Your task to perform on an android device: change keyboard looks Image 0: 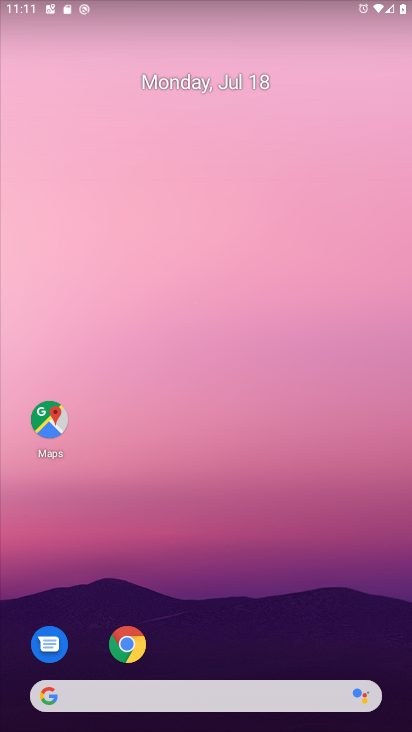
Step 0: drag from (244, 667) to (185, 107)
Your task to perform on an android device: change keyboard looks Image 1: 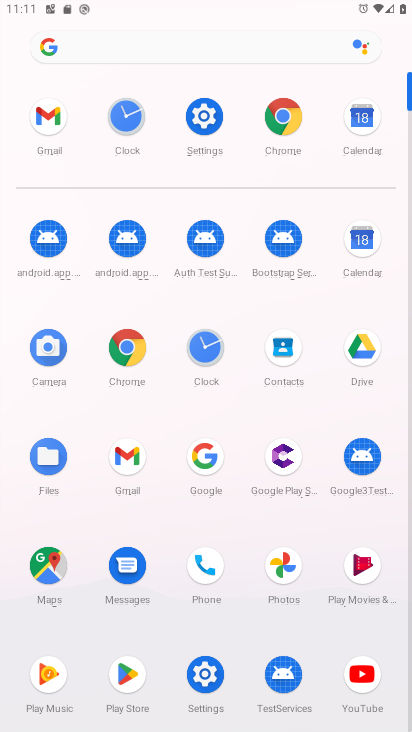
Step 1: click (201, 137)
Your task to perform on an android device: change keyboard looks Image 2: 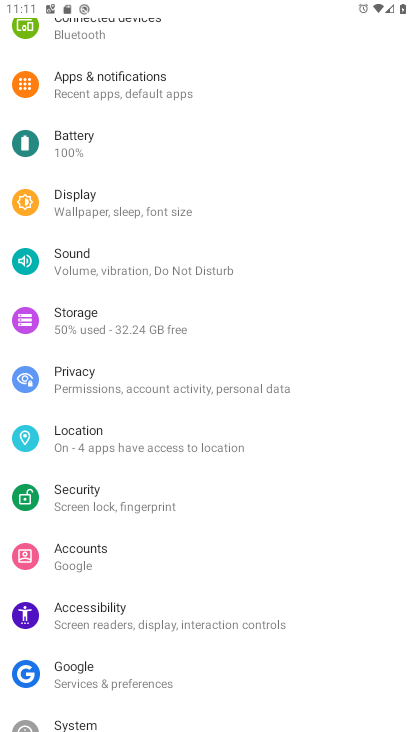
Step 2: drag from (134, 678) to (103, 368)
Your task to perform on an android device: change keyboard looks Image 3: 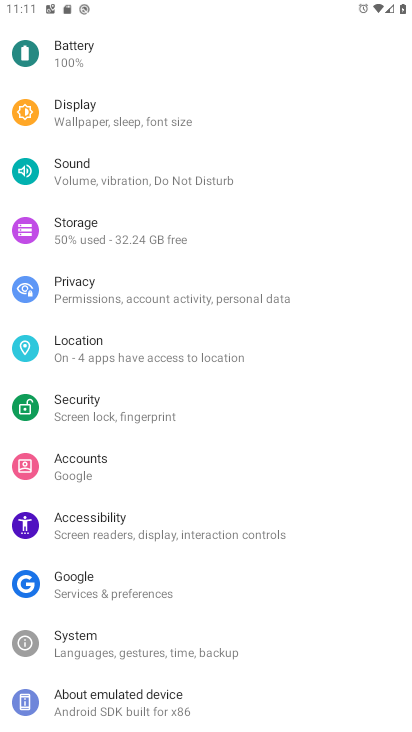
Step 3: click (233, 658)
Your task to perform on an android device: change keyboard looks Image 4: 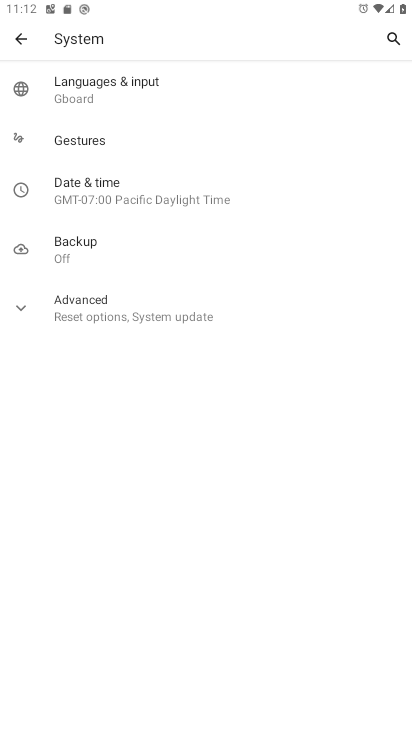
Step 4: click (84, 102)
Your task to perform on an android device: change keyboard looks Image 5: 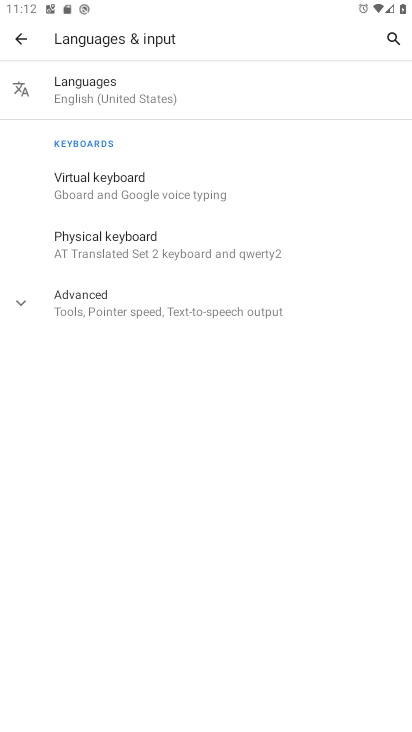
Step 5: click (135, 199)
Your task to perform on an android device: change keyboard looks Image 6: 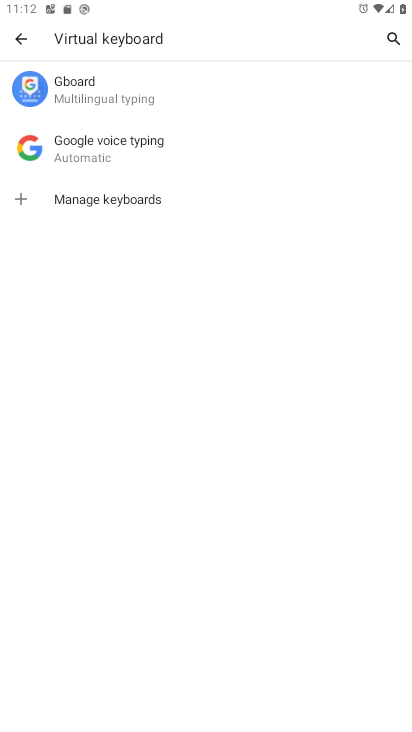
Step 6: click (118, 105)
Your task to perform on an android device: change keyboard looks Image 7: 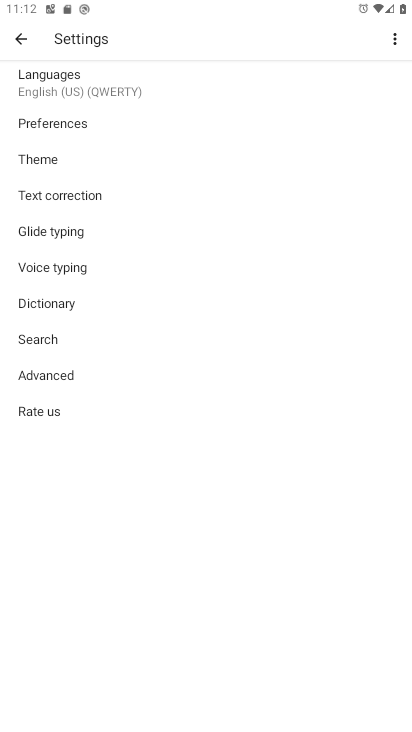
Step 7: click (114, 104)
Your task to perform on an android device: change keyboard looks Image 8: 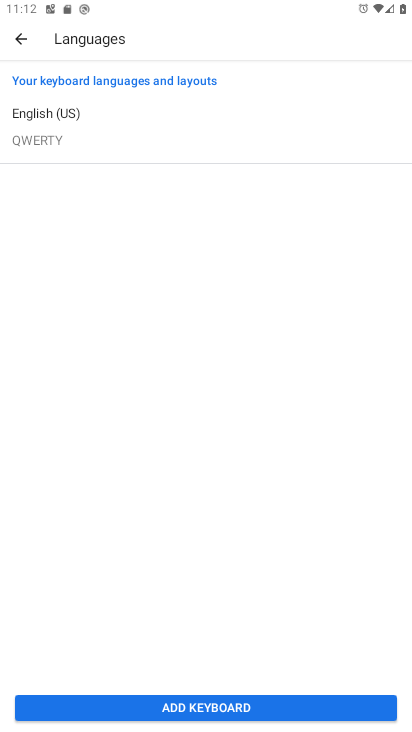
Step 8: task complete